Your task to perform on an android device: turn notification dots off Image 0: 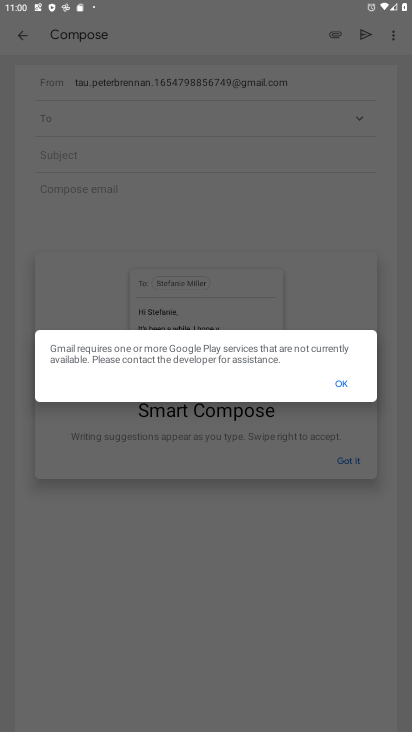
Step 0: press home button
Your task to perform on an android device: turn notification dots off Image 1: 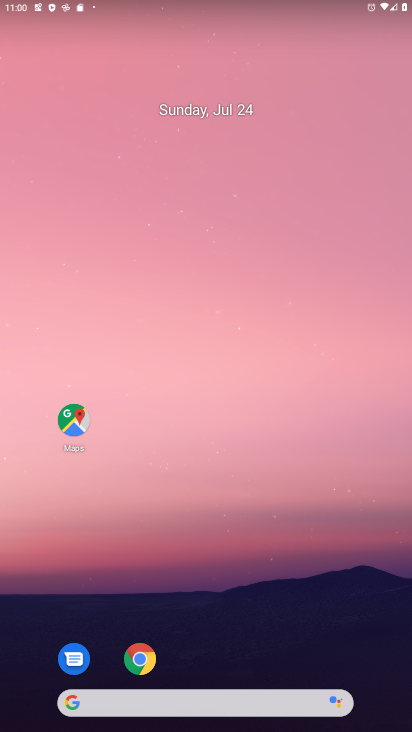
Step 1: drag from (372, 670) to (366, 20)
Your task to perform on an android device: turn notification dots off Image 2: 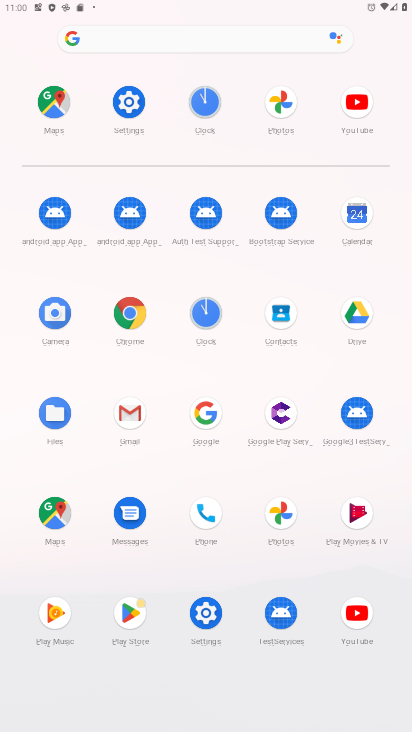
Step 2: click (134, 95)
Your task to perform on an android device: turn notification dots off Image 3: 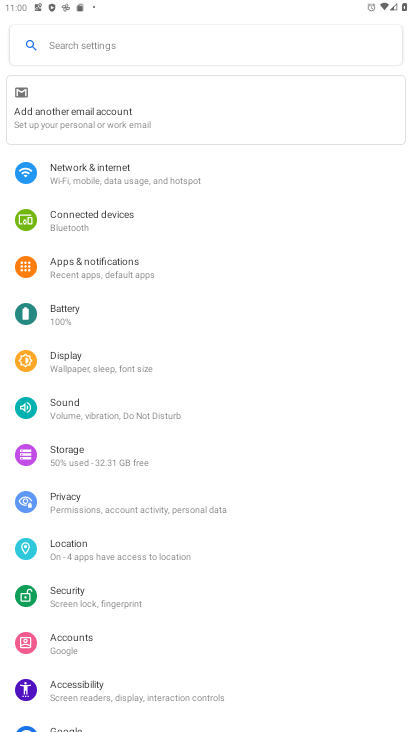
Step 3: click (116, 255)
Your task to perform on an android device: turn notification dots off Image 4: 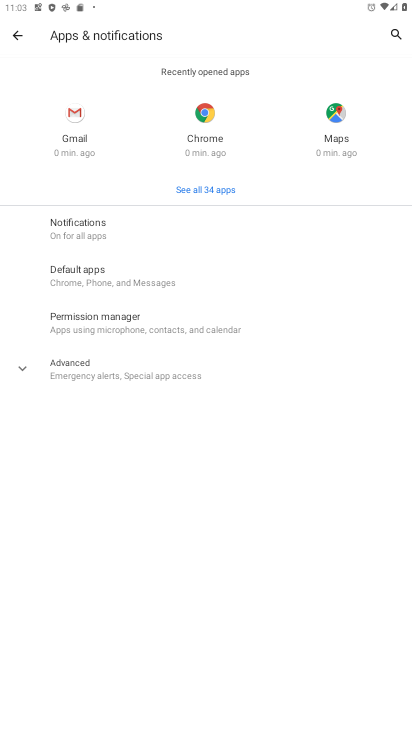
Step 4: click (82, 229)
Your task to perform on an android device: turn notification dots off Image 5: 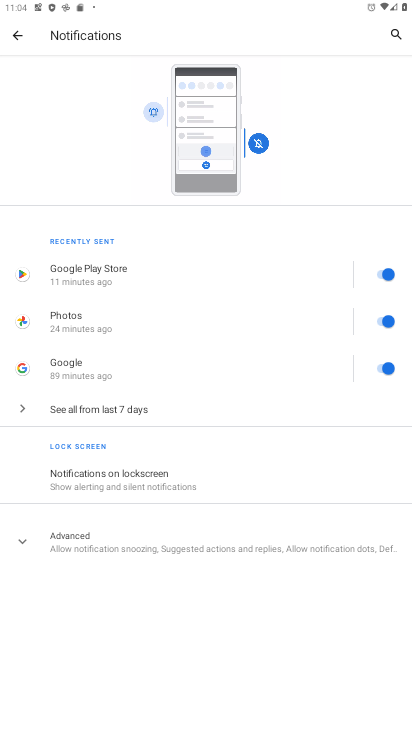
Step 5: click (28, 533)
Your task to perform on an android device: turn notification dots off Image 6: 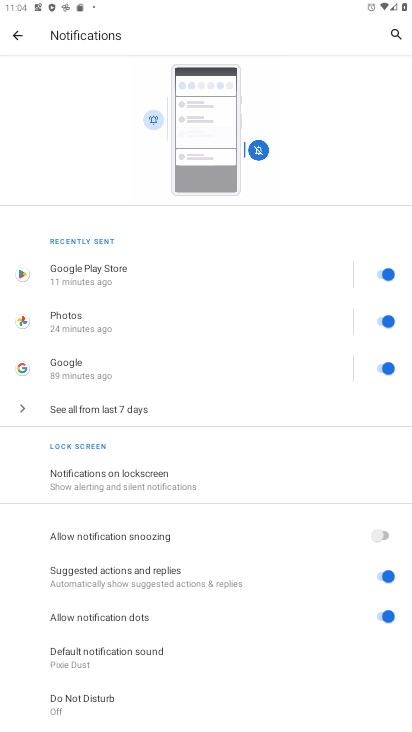
Step 6: click (379, 617)
Your task to perform on an android device: turn notification dots off Image 7: 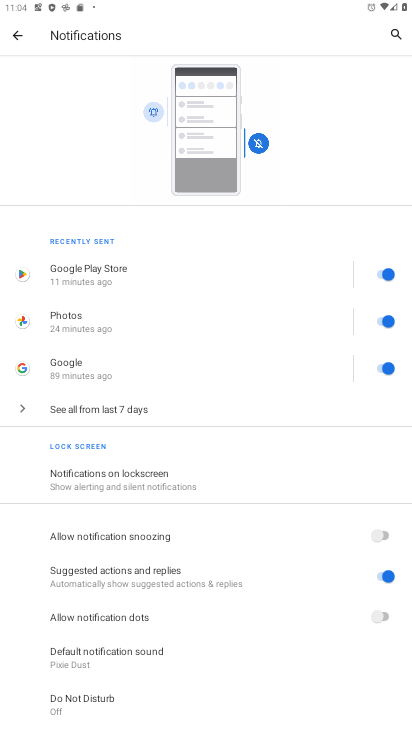
Step 7: task complete